Your task to perform on an android device: Show me recent news Image 0: 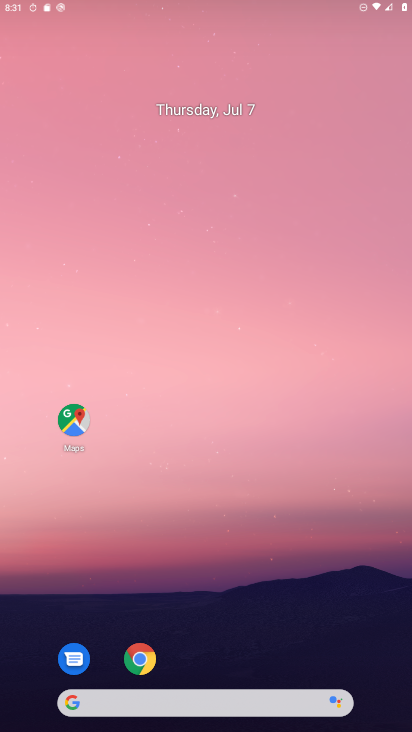
Step 0: drag from (374, 670) to (258, 11)
Your task to perform on an android device: Show me recent news Image 1: 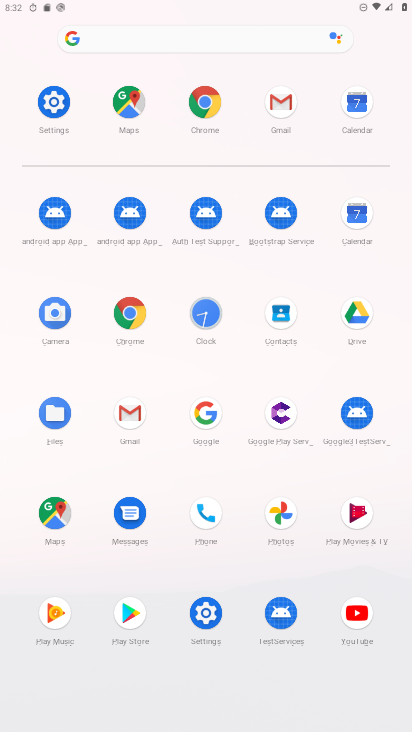
Step 1: click (215, 416)
Your task to perform on an android device: Show me recent news Image 2: 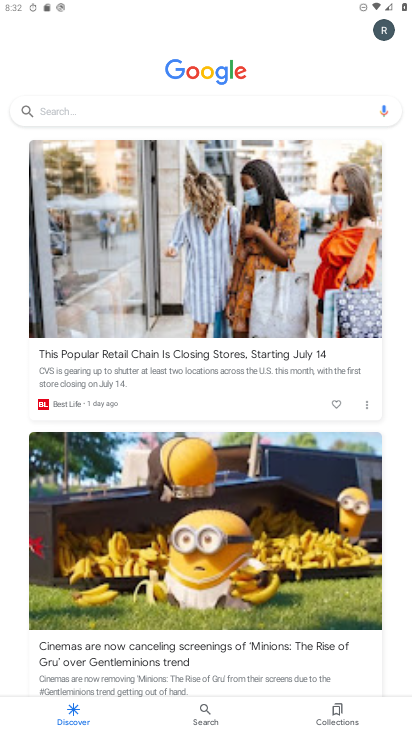
Step 2: click (131, 206)
Your task to perform on an android device: Show me recent news Image 3: 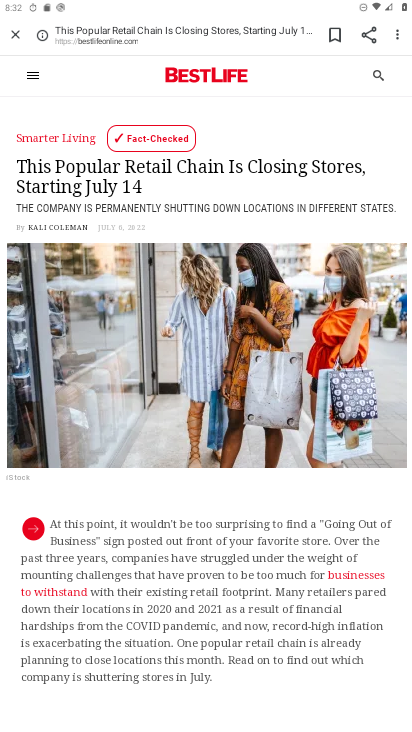
Step 3: task complete